Your task to perform on an android device: move an email to a new category in the gmail app Image 0: 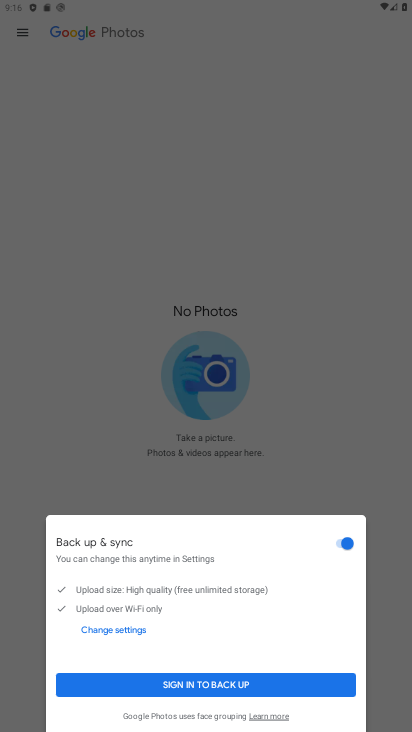
Step 0: press home button
Your task to perform on an android device: move an email to a new category in the gmail app Image 1: 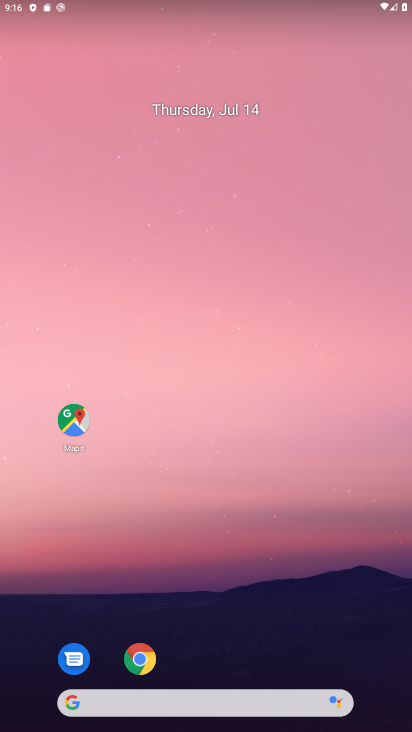
Step 1: drag from (209, 659) to (214, 184)
Your task to perform on an android device: move an email to a new category in the gmail app Image 2: 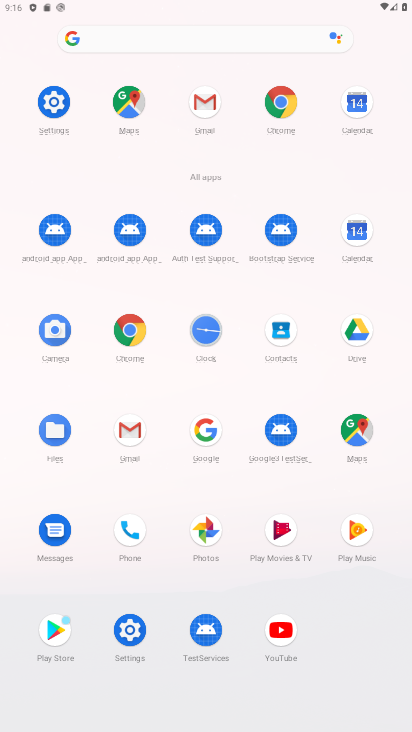
Step 2: click (202, 94)
Your task to perform on an android device: move an email to a new category in the gmail app Image 3: 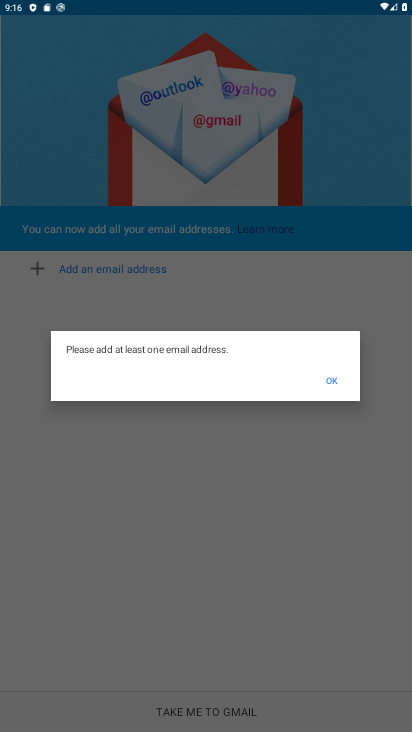
Step 3: task complete